Your task to perform on an android device: turn on airplane mode Image 0: 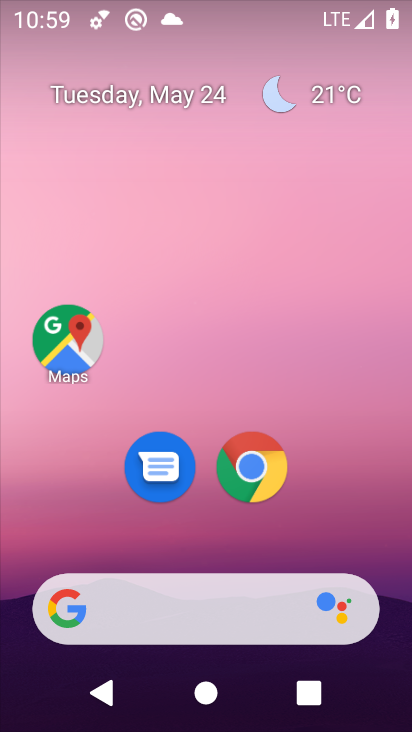
Step 0: drag from (190, 545) to (254, 137)
Your task to perform on an android device: turn on airplane mode Image 1: 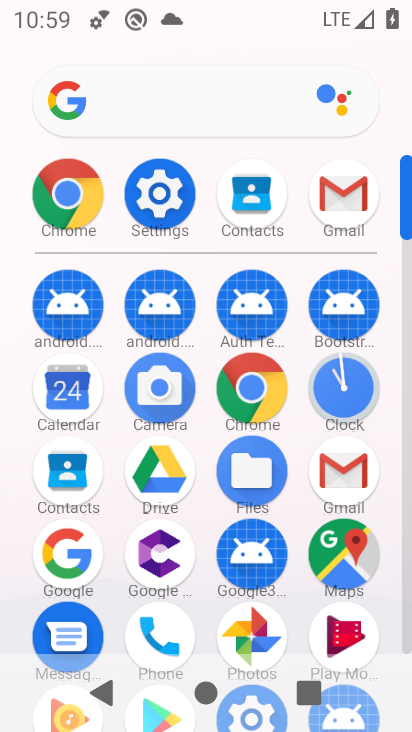
Step 1: click (160, 182)
Your task to perform on an android device: turn on airplane mode Image 2: 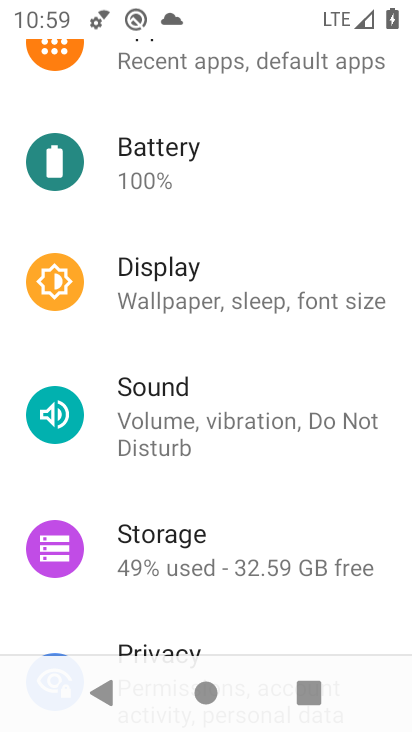
Step 2: drag from (210, 212) to (260, 653)
Your task to perform on an android device: turn on airplane mode Image 3: 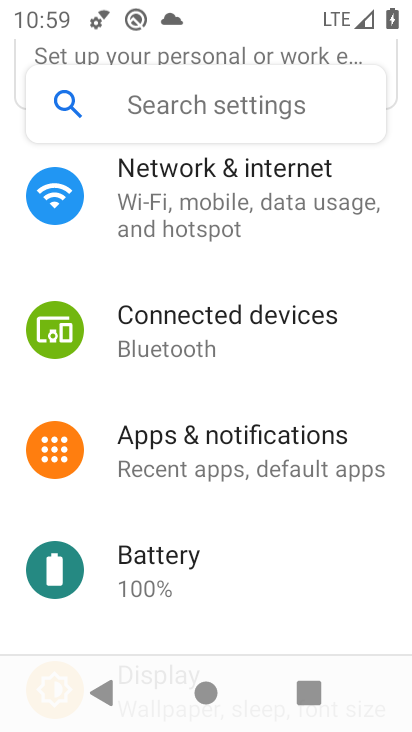
Step 3: click (206, 238)
Your task to perform on an android device: turn on airplane mode Image 4: 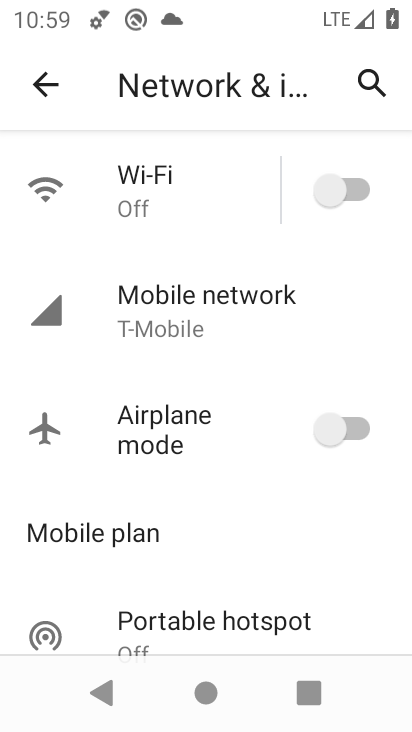
Step 4: click (321, 418)
Your task to perform on an android device: turn on airplane mode Image 5: 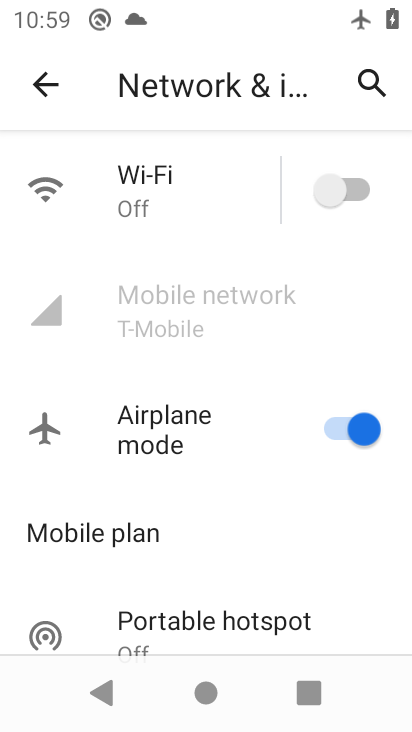
Step 5: task complete